Your task to perform on an android device: open a new tab in the chrome app Image 0: 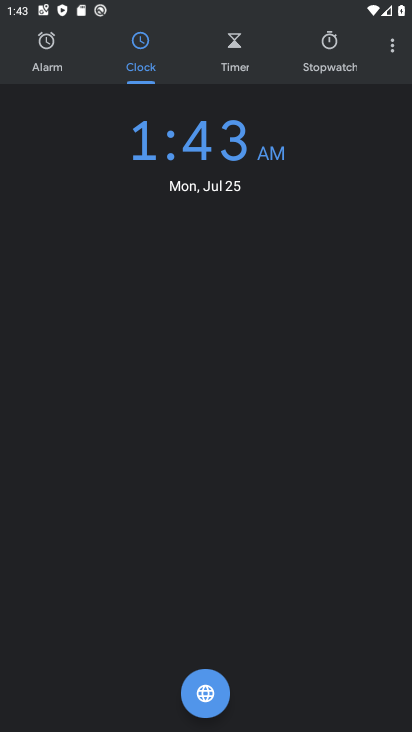
Step 0: task complete